Your task to perform on an android device: change alarm snooze length Image 0: 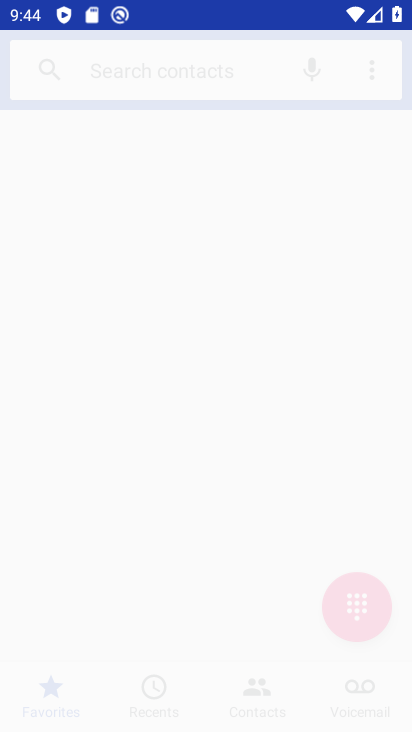
Step 0: drag from (213, 624) to (226, 79)
Your task to perform on an android device: change alarm snooze length Image 1: 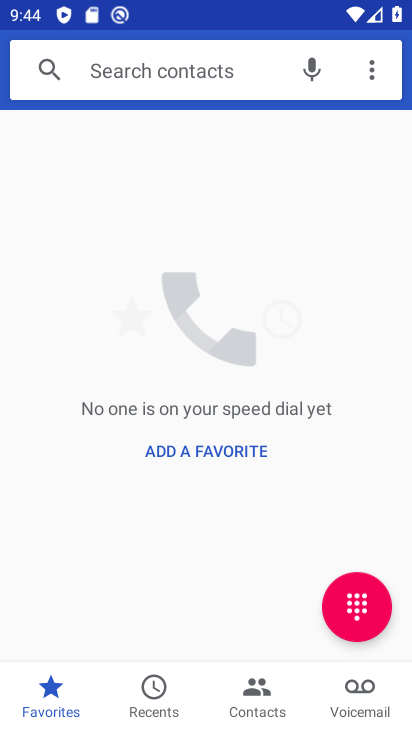
Step 1: press home button
Your task to perform on an android device: change alarm snooze length Image 2: 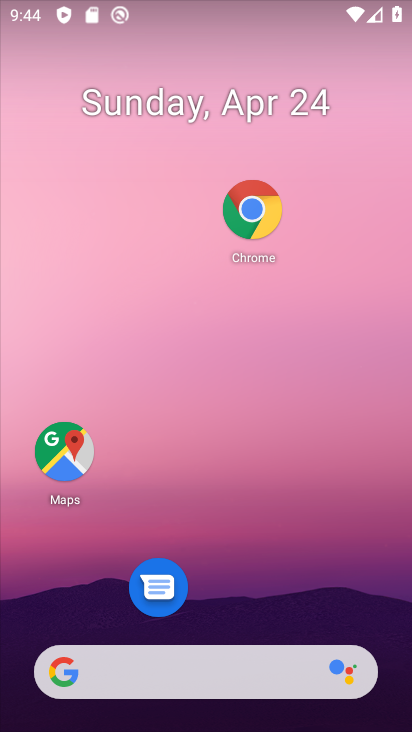
Step 2: drag from (221, 518) to (280, 151)
Your task to perform on an android device: change alarm snooze length Image 3: 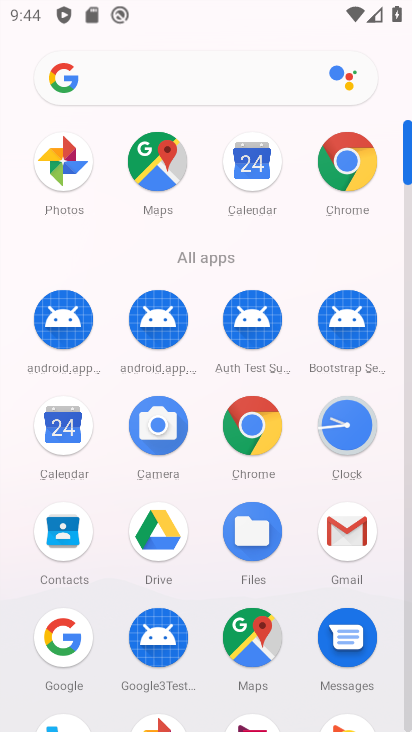
Step 3: click (345, 419)
Your task to perform on an android device: change alarm snooze length Image 4: 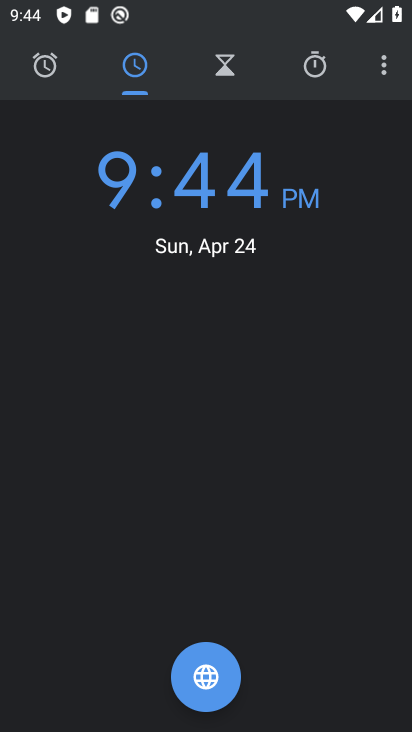
Step 4: click (378, 73)
Your task to perform on an android device: change alarm snooze length Image 5: 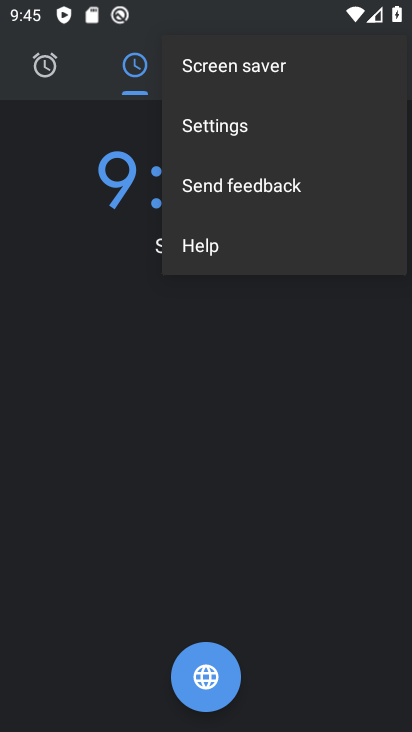
Step 5: click (255, 123)
Your task to perform on an android device: change alarm snooze length Image 6: 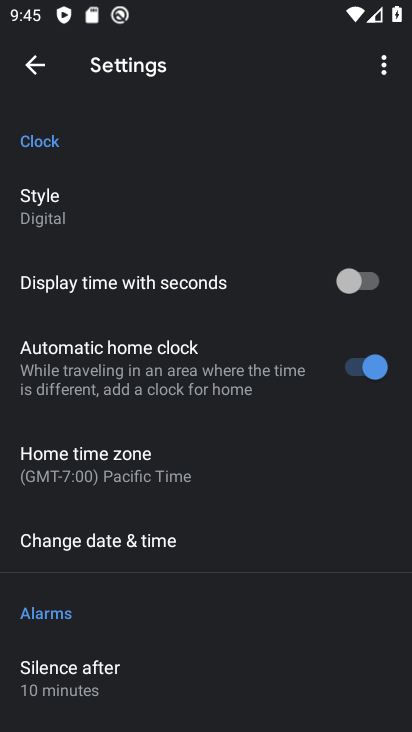
Step 6: drag from (205, 628) to (222, 97)
Your task to perform on an android device: change alarm snooze length Image 7: 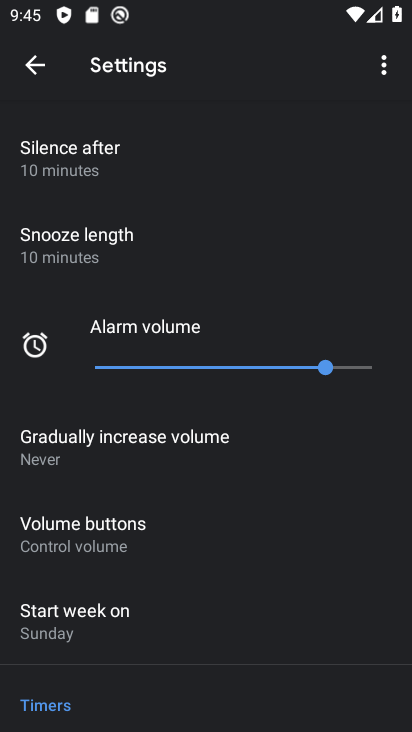
Step 7: click (150, 237)
Your task to perform on an android device: change alarm snooze length Image 8: 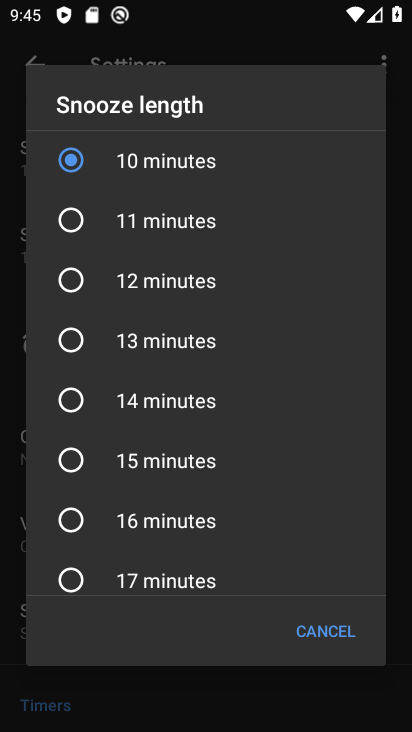
Step 8: click (70, 279)
Your task to perform on an android device: change alarm snooze length Image 9: 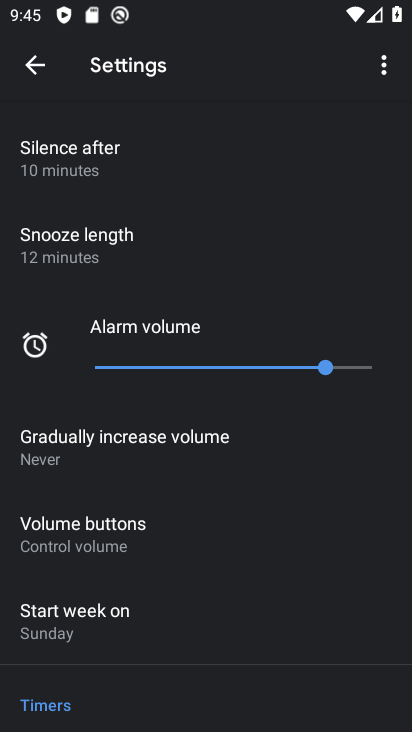
Step 9: task complete